Your task to perform on an android device: Open internet settings Image 0: 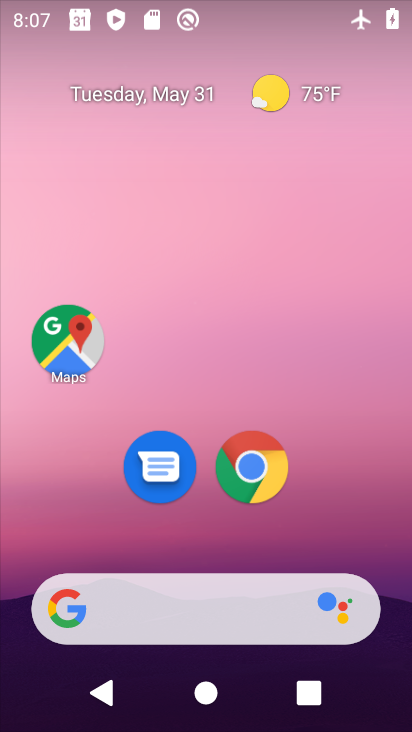
Step 0: drag from (177, 557) to (197, 109)
Your task to perform on an android device: Open internet settings Image 1: 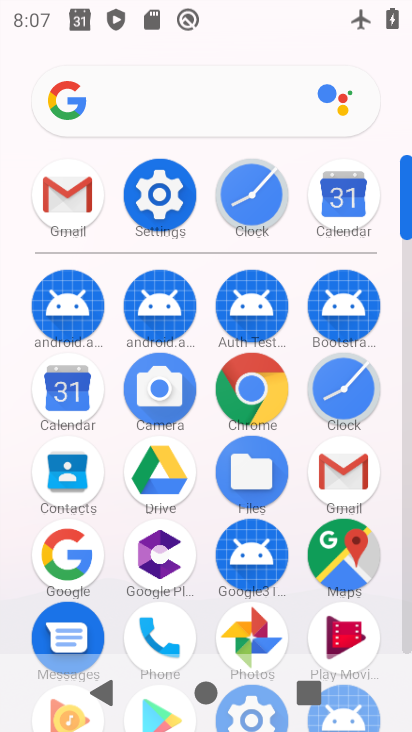
Step 1: click (164, 199)
Your task to perform on an android device: Open internet settings Image 2: 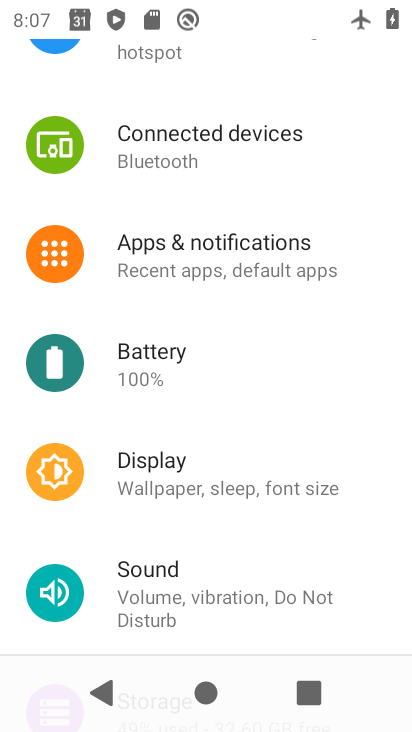
Step 2: drag from (226, 221) to (232, 645)
Your task to perform on an android device: Open internet settings Image 3: 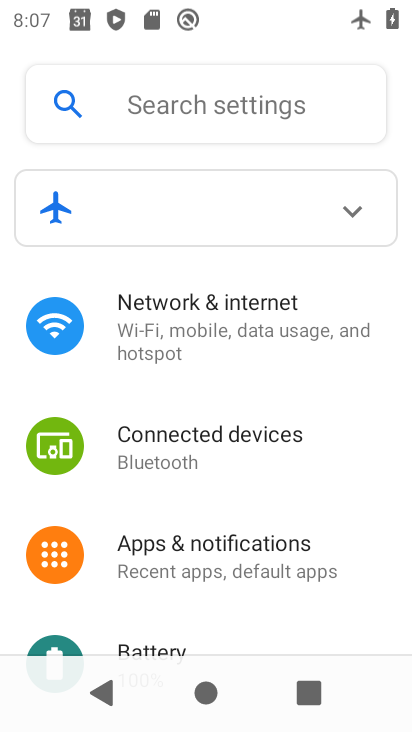
Step 3: click (197, 318)
Your task to perform on an android device: Open internet settings Image 4: 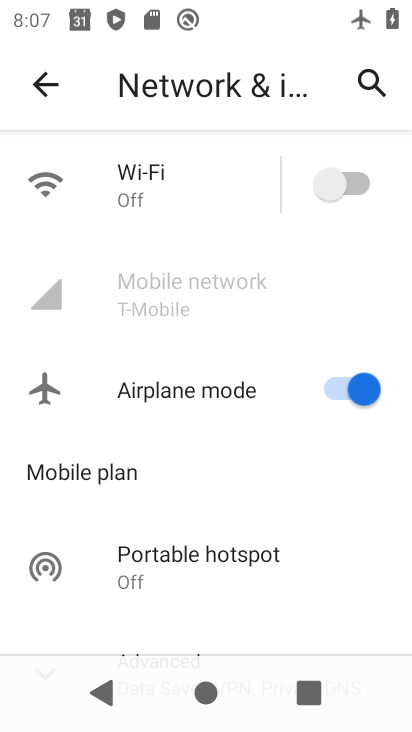
Step 4: task complete